Your task to perform on an android device: delete location history Image 0: 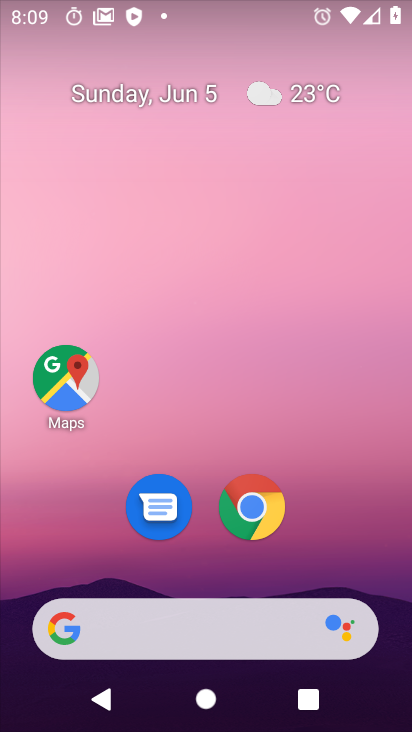
Step 0: drag from (270, 647) to (252, 198)
Your task to perform on an android device: delete location history Image 1: 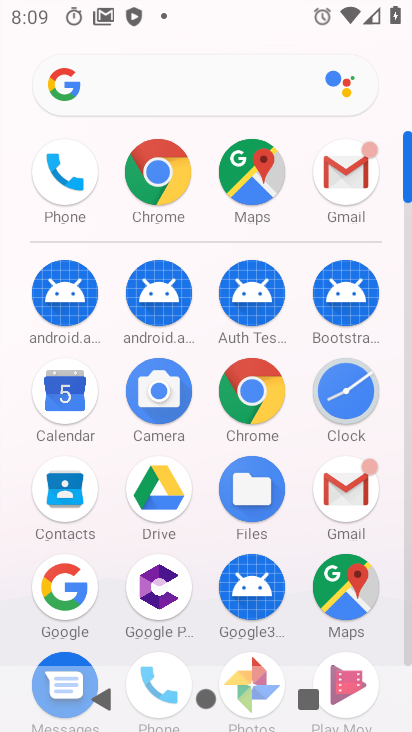
Step 1: drag from (101, 533) to (131, 314)
Your task to perform on an android device: delete location history Image 2: 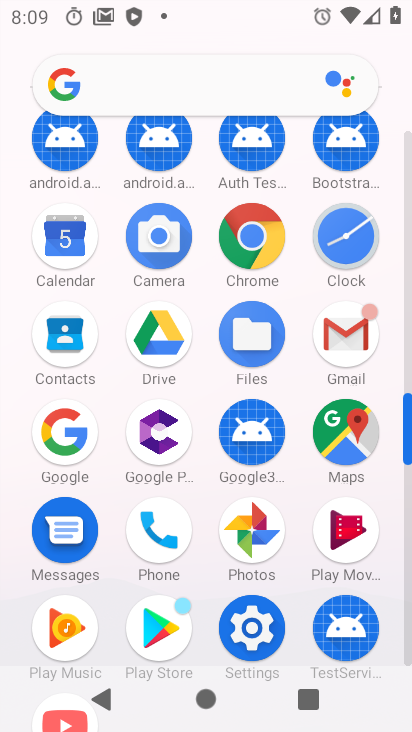
Step 2: click (276, 630)
Your task to perform on an android device: delete location history Image 3: 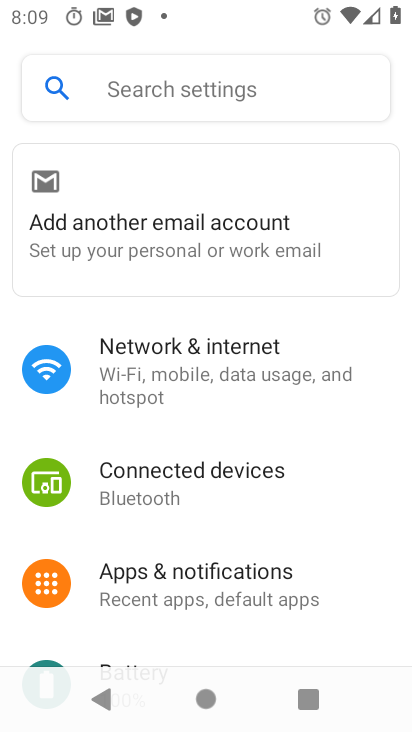
Step 3: click (191, 96)
Your task to perform on an android device: delete location history Image 4: 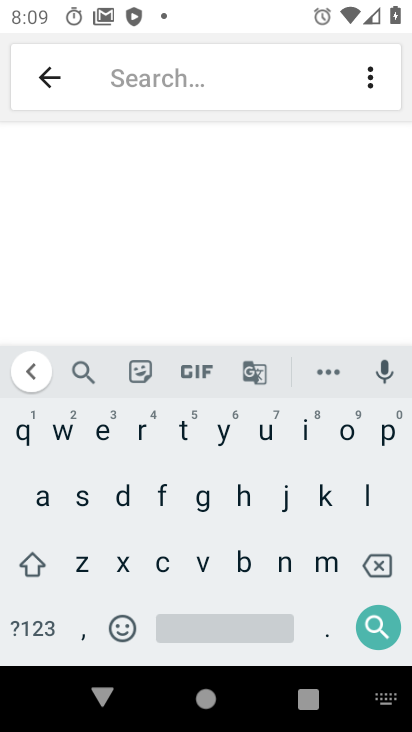
Step 4: click (374, 496)
Your task to perform on an android device: delete location history Image 5: 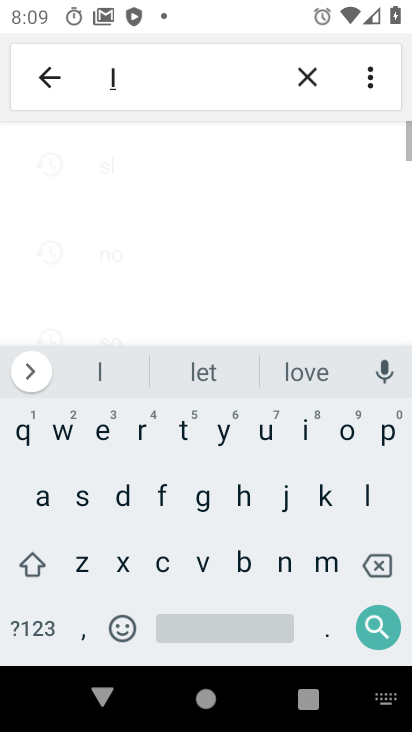
Step 5: click (343, 437)
Your task to perform on an android device: delete location history Image 6: 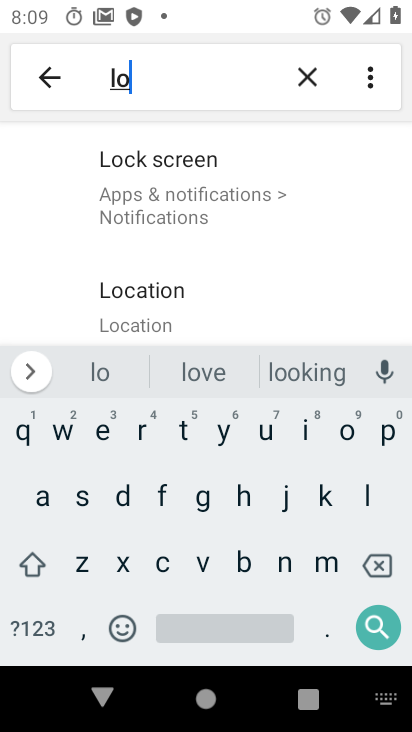
Step 6: click (185, 301)
Your task to perform on an android device: delete location history Image 7: 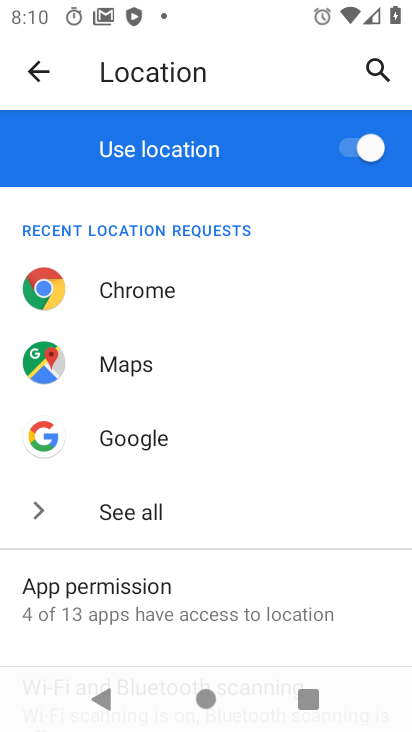
Step 7: drag from (120, 583) to (188, 317)
Your task to perform on an android device: delete location history Image 8: 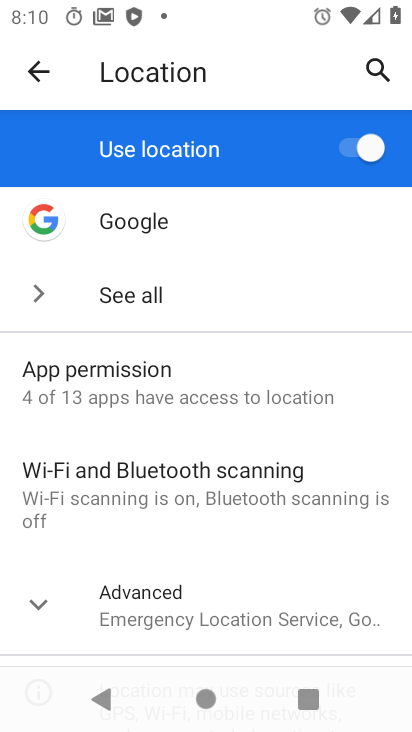
Step 8: click (72, 614)
Your task to perform on an android device: delete location history Image 9: 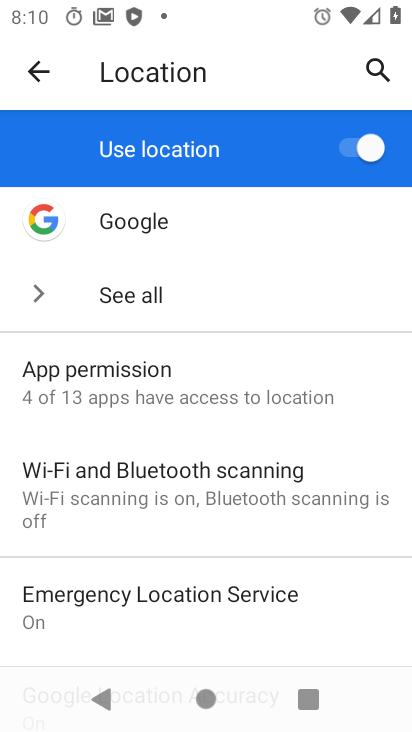
Step 9: drag from (211, 603) to (252, 384)
Your task to perform on an android device: delete location history Image 10: 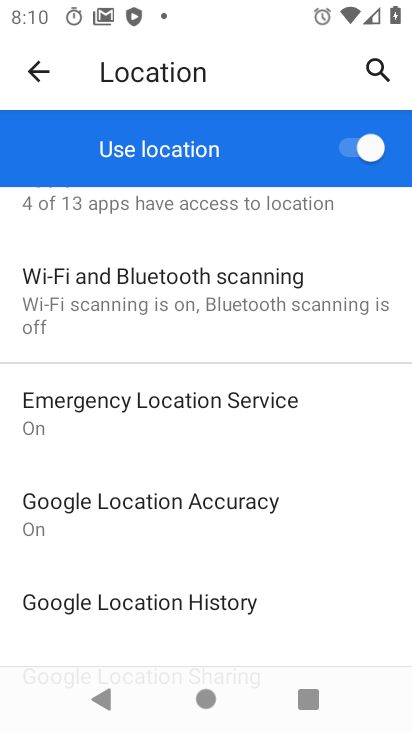
Step 10: click (190, 584)
Your task to perform on an android device: delete location history Image 11: 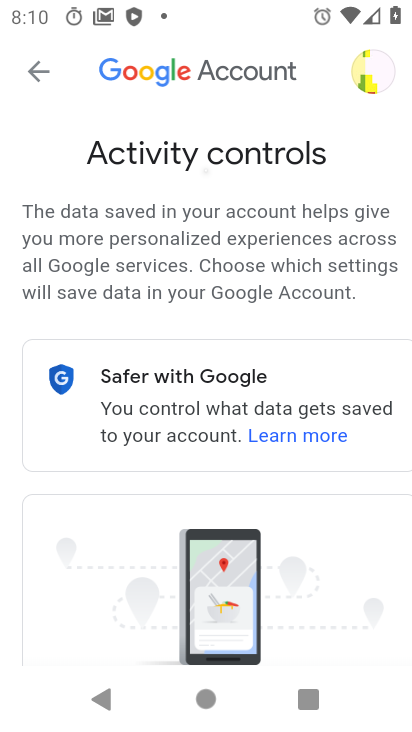
Step 11: task complete